Your task to perform on an android device: choose inbox layout in the gmail app Image 0: 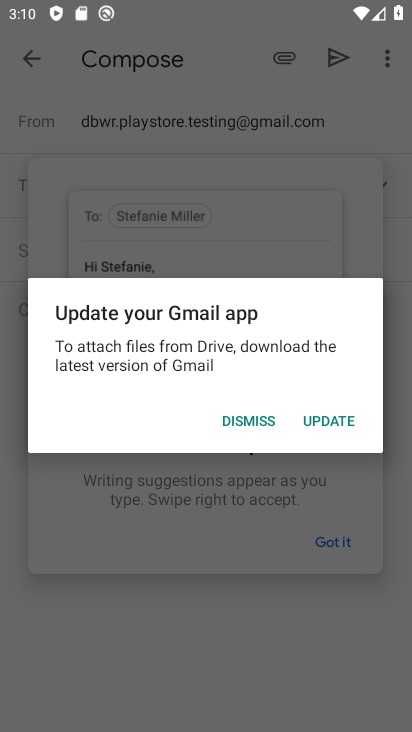
Step 0: click (249, 414)
Your task to perform on an android device: choose inbox layout in the gmail app Image 1: 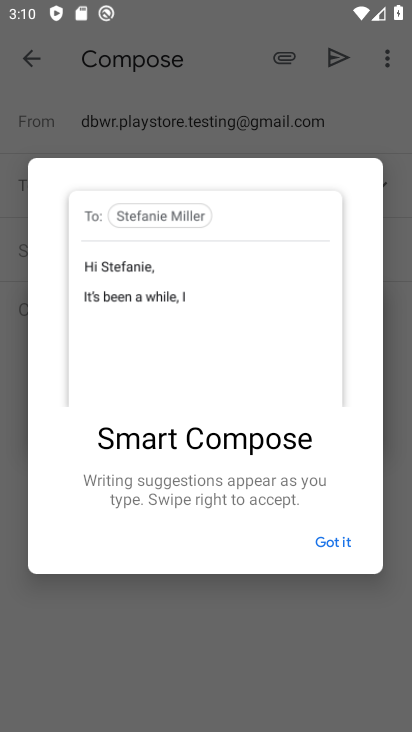
Step 1: click (324, 537)
Your task to perform on an android device: choose inbox layout in the gmail app Image 2: 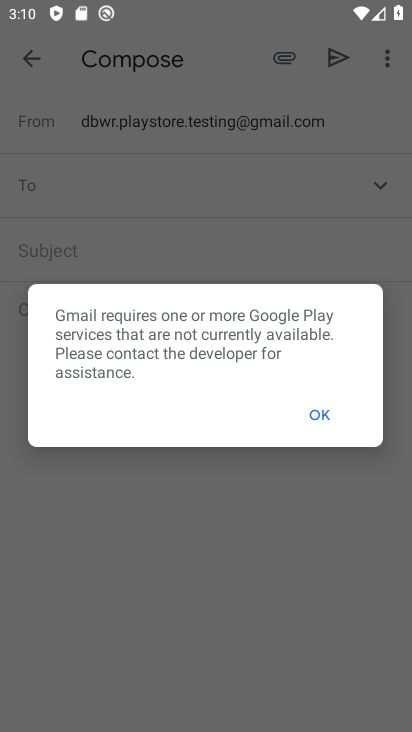
Step 2: click (318, 415)
Your task to perform on an android device: choose inbox layout in the gmail app Image 3: 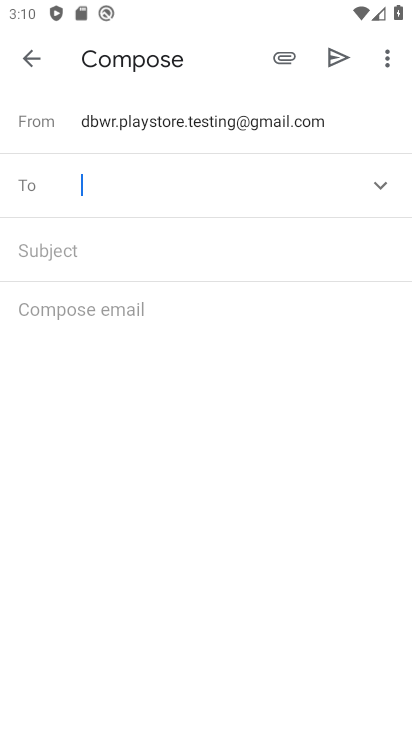
Step 3: click (32, 62)
Your task to perform on an android device: choose inbox layout in the gmail app Image 4: 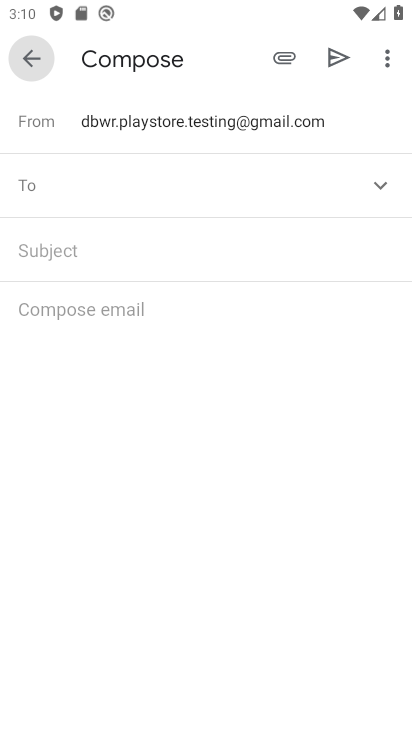
Step 4: click (31, 57)
Your task to perform on an android device: choose inbox layout in the gmail app Image 5: 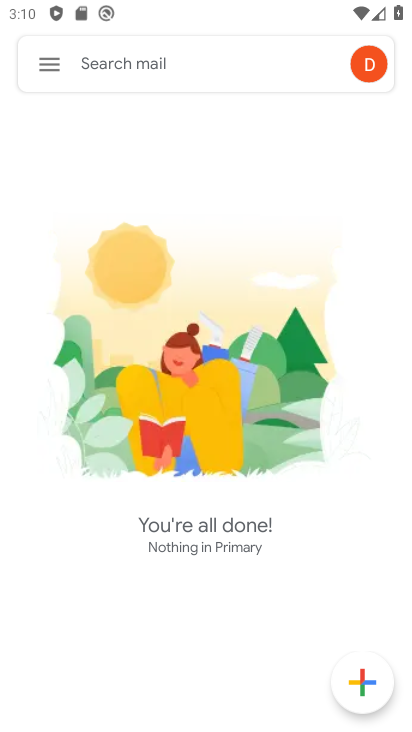
Step 5: click (42, 62)
Your task to perform on an android device: choose inbox layout in the gmail app Image 6: 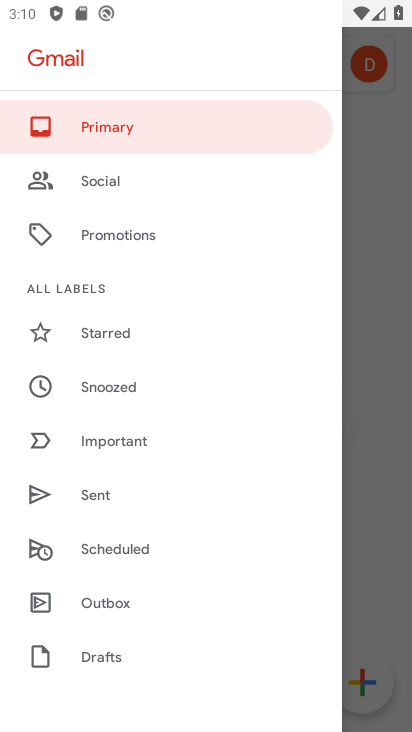
Step 6: drag from (192, 593) to (202, 223)
Your task to perform on an android device: choose inbox layout in the gmail app Image 7: 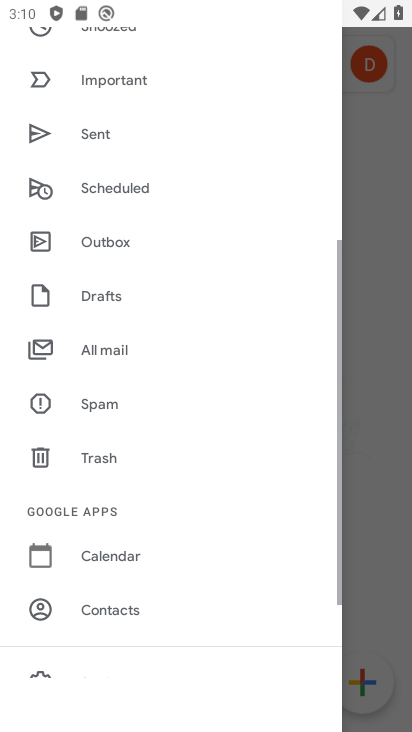
Step 7: drag from (191, 630) to (183, 196)
Your task to perform on an android device: choose inbox layout in the gmail app Image 8: 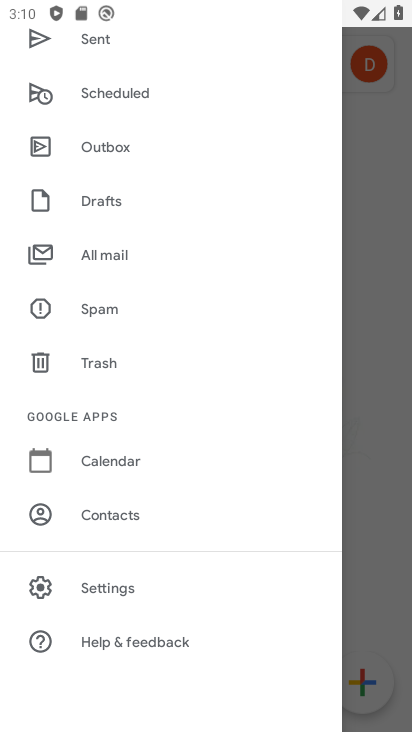
Step 8: click (108, 253)
Your task to perform on an android device: choose inbox layout in the gmail app Image 9: 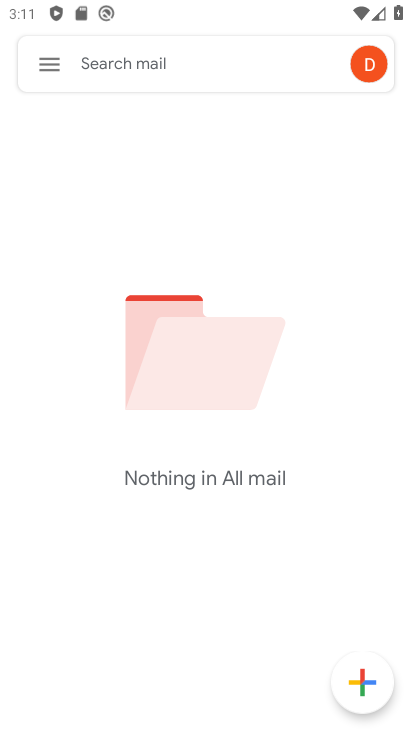
Step 9: task complete